Your task to perform on an android device: turn off sleep mode Image 0: 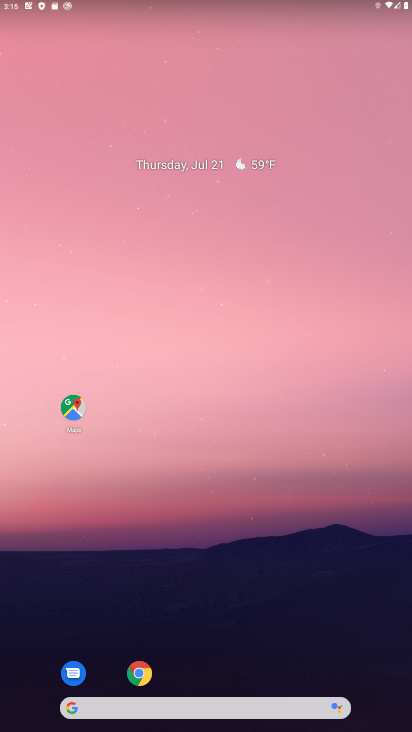
Step 0: drag from (324, 607) to (242, 71)
Your task to perform on an android device: turn off sleep mode Image 1: 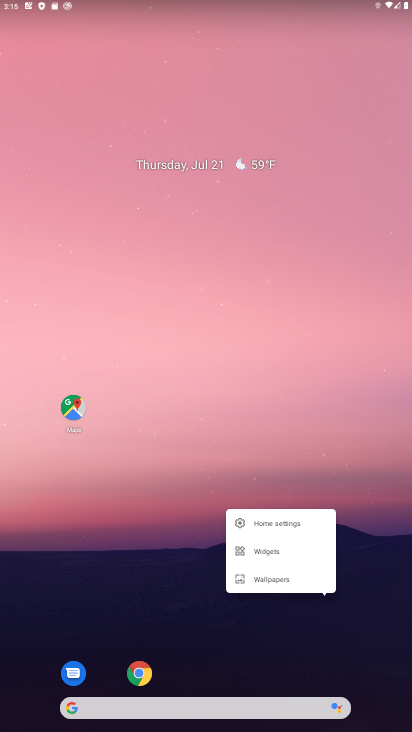
Step 1: drag from (397, 669) to (328, 221)
Your task to perform on an android device: turn off sleep mode Image 2: 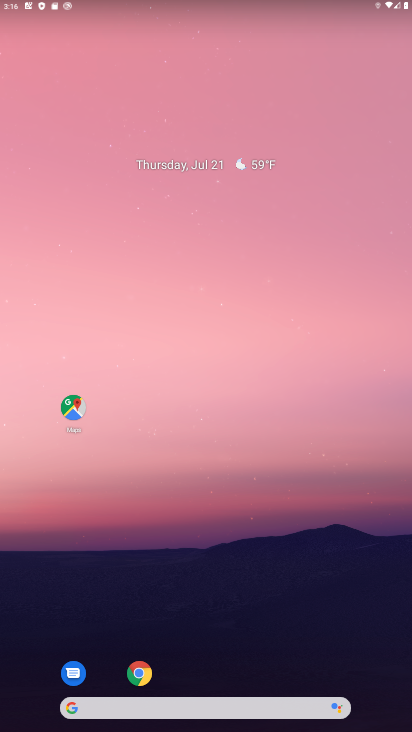
Step 2: drag from (286, 677) to (168, 36)
Your task to perform on an android device: turn off sleep mode Image 3: 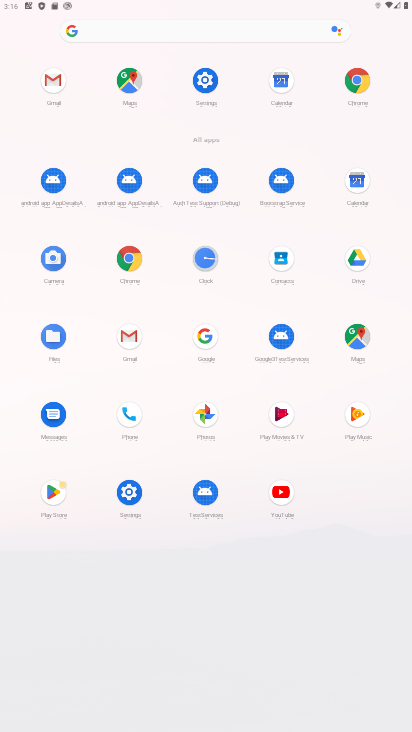
Step 3: click (208, 74)
Your task to perform on an android device: turn off sleep mode Image 4: 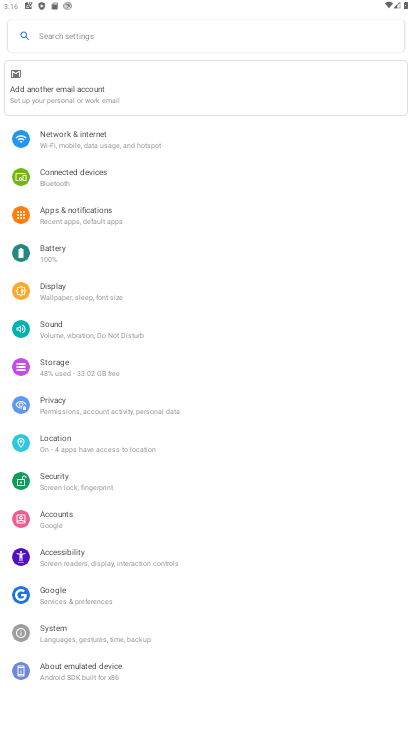
Step 4: click (92, 303)
Your task to perform on an android device: turn off sleep mode Image 5: 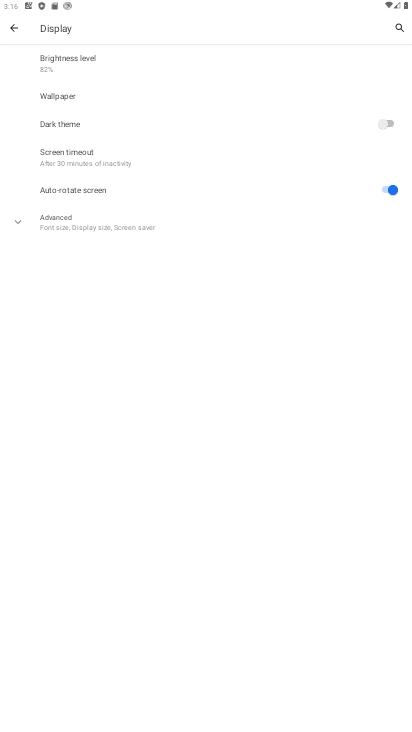
Step 5: click (312, 228)
Your task to perform on an android device: turn off sleep mode Image 6: 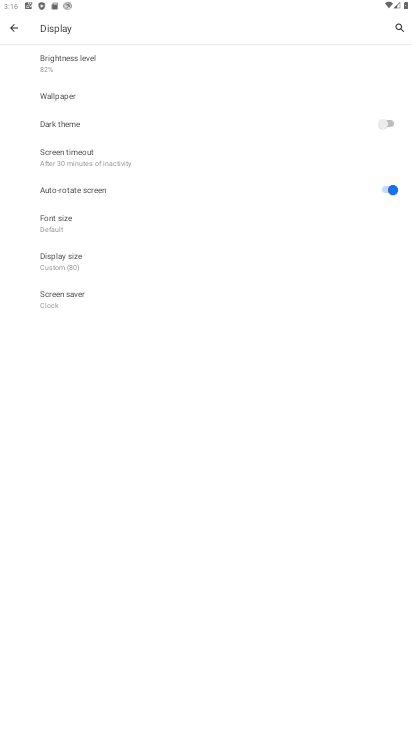
Step 6: task complete